Your task to perform on an android device: Search for Mexican restaurants on Maps Image 0: 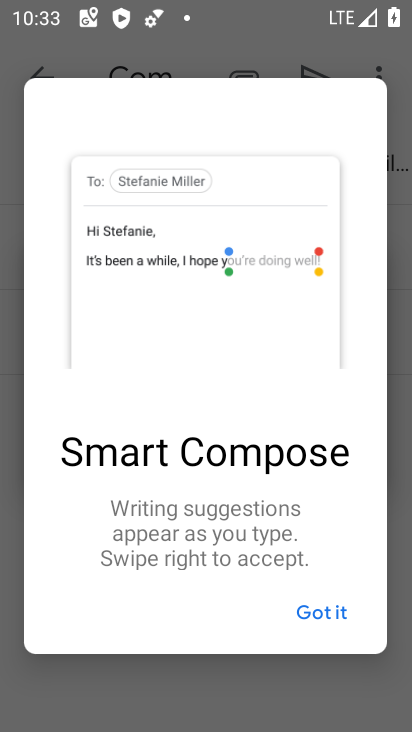
Step 0: press home button
Your task to perform on an android device: Search for Mexican restaurants on Maps Image 1: 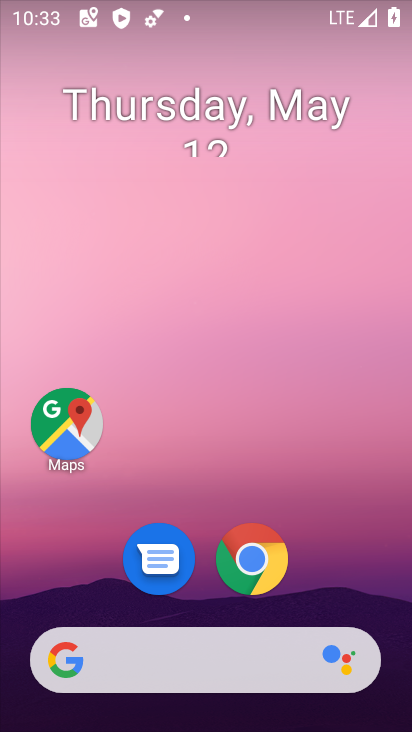
Step 1: click (82, 453)
Your task to perform on an android device: Search for Mexican restaurants on Maps Image 2: 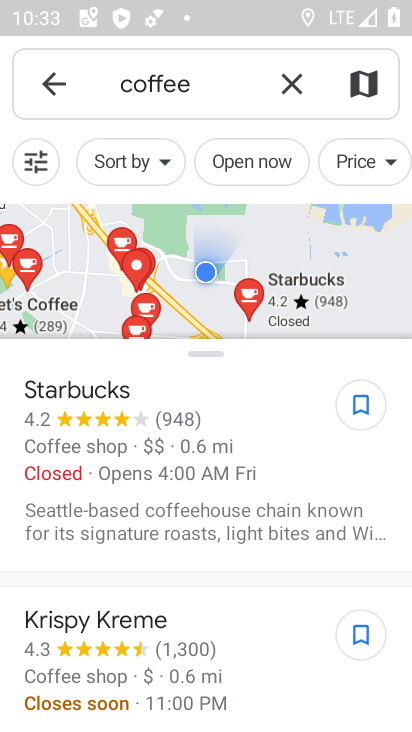
Step 2: click (286, 98)
Your task to perform on an android device: Search for Mexican restaurants on Maps Image 3: 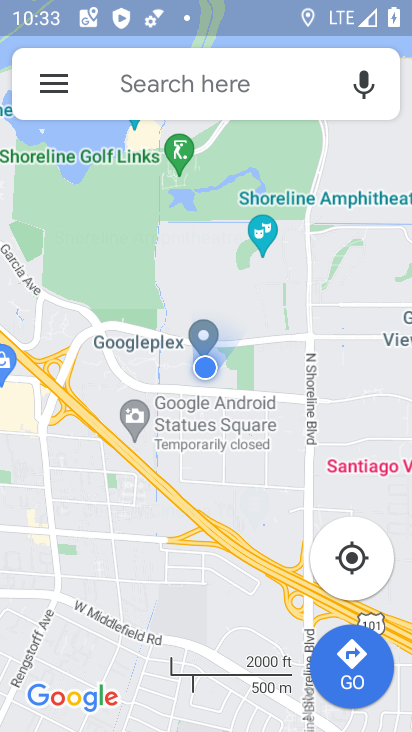
Step 3: click (257, 85)
Your task to perform on an android device: Search for Mexican restaurants on Maps Image 4: 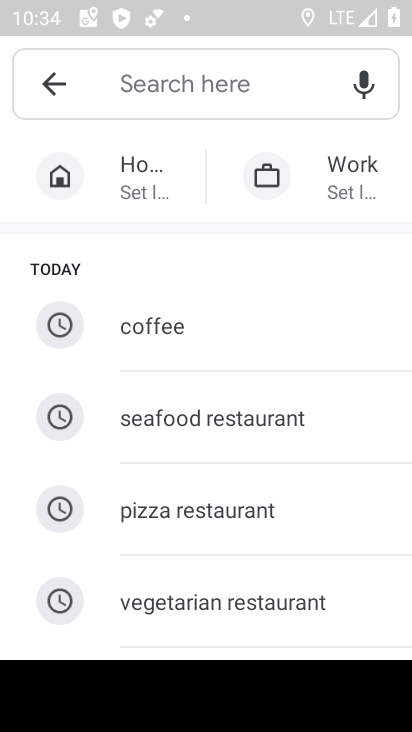
Step 4: type "Mexican restaurants"
Your task to perform on an android device: Search for Mexican restaurants on Maps Image 5: 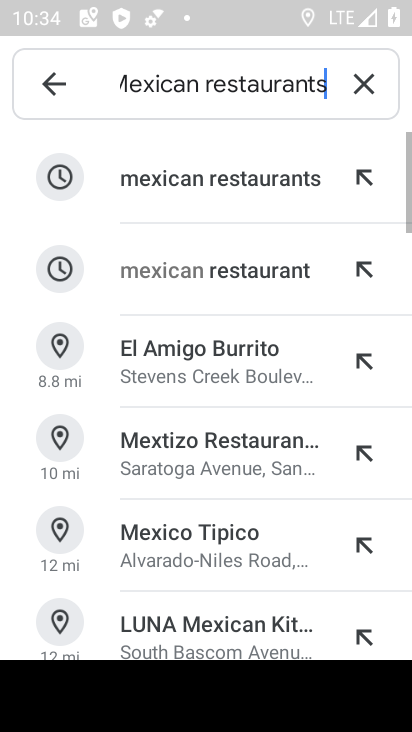
Step 5: click (277, 168)
Your task to perform on an android device: Search for Mexican restaurants on Maps Image 6: 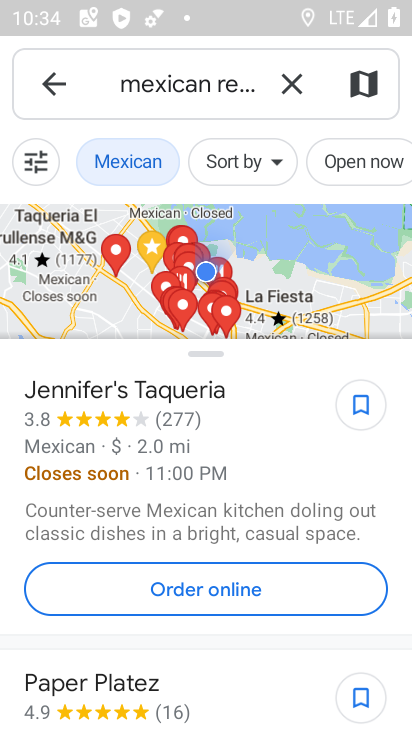
Step 6: task complete